Your task to perform on an android device: Clear the shopping cart on costco. Add "acer nitro" to the cart on costco Image 0: 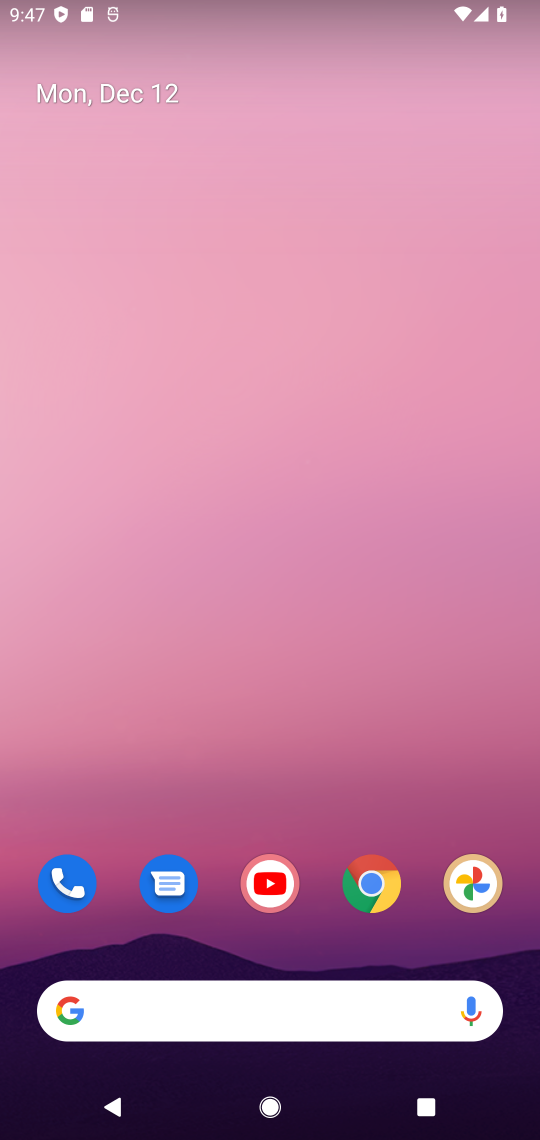
Step 0: drag from (243, 709) to (191, 364)
Your task to perform on an android device: Clear the shopping cart on costco. Add "acer nitro" to the cart on costco Image 1: 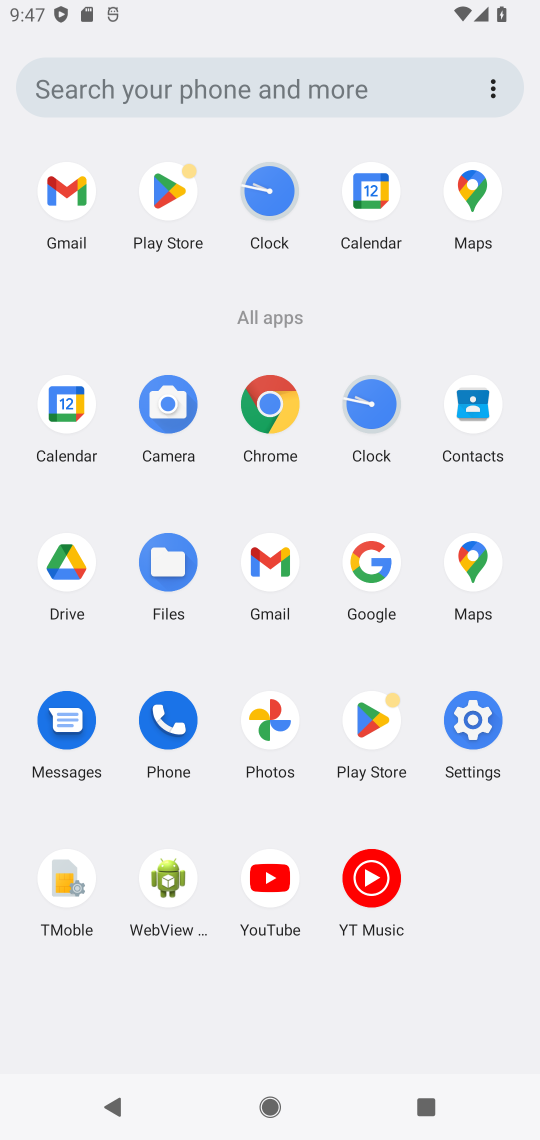
Step 1: click (367, 552)
Your task to perform on an android device: Clear the shopping cart on costco. Add "acer nitro" to the cart on costco Image 2: 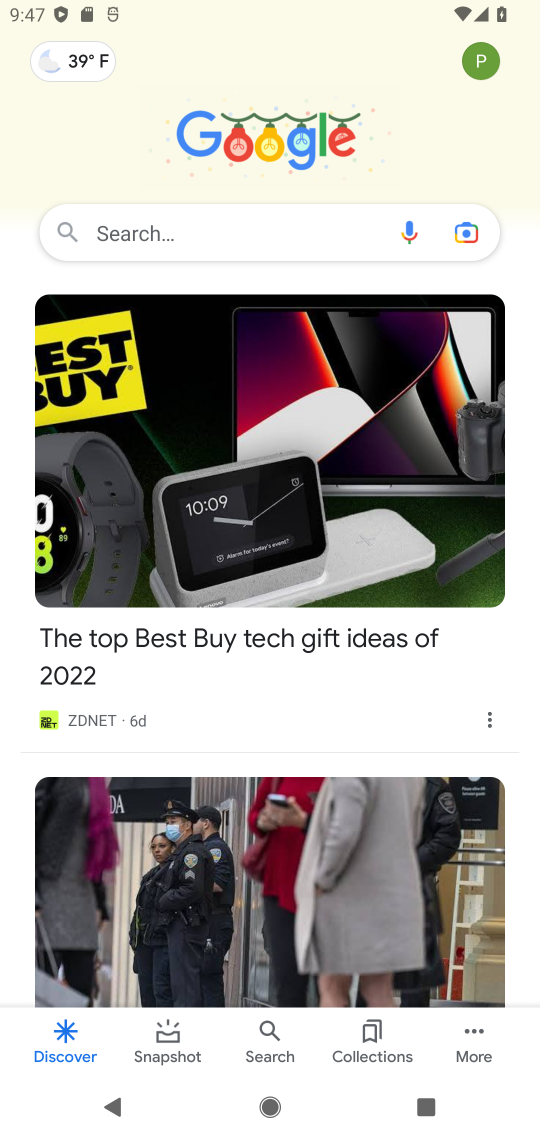
Step 2: click (176, 220)
Your task to perform on an android device: Clear the shopping cart on costco. Add "acer nitro" to the cart on costco Image 3: 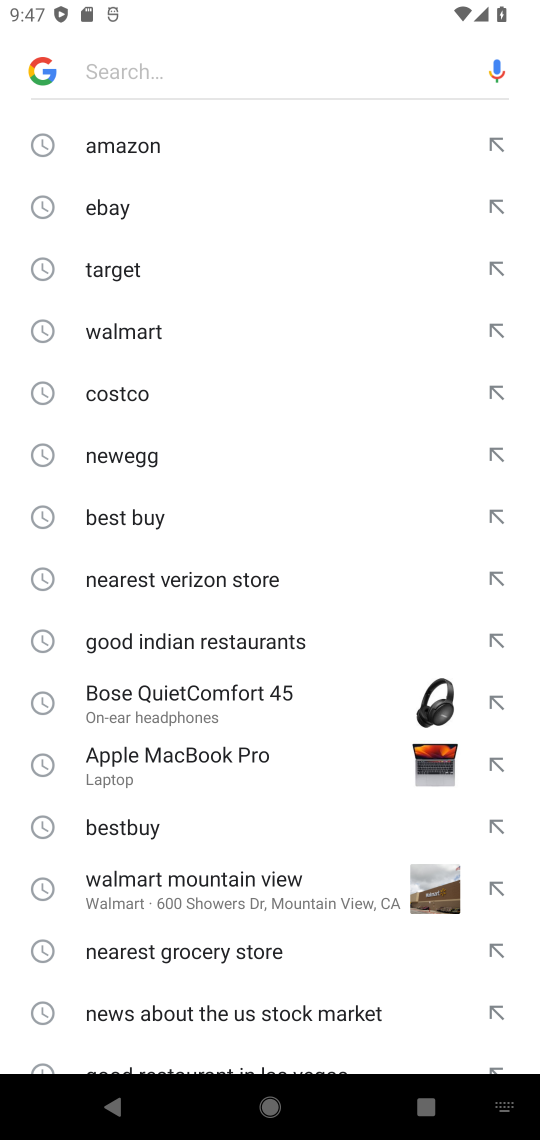
Step 3: click (118, 395)
Your task to perform on an android device: Clear the shopping cart on costco. Add "acer nitro" to the cart on costco Image 4: 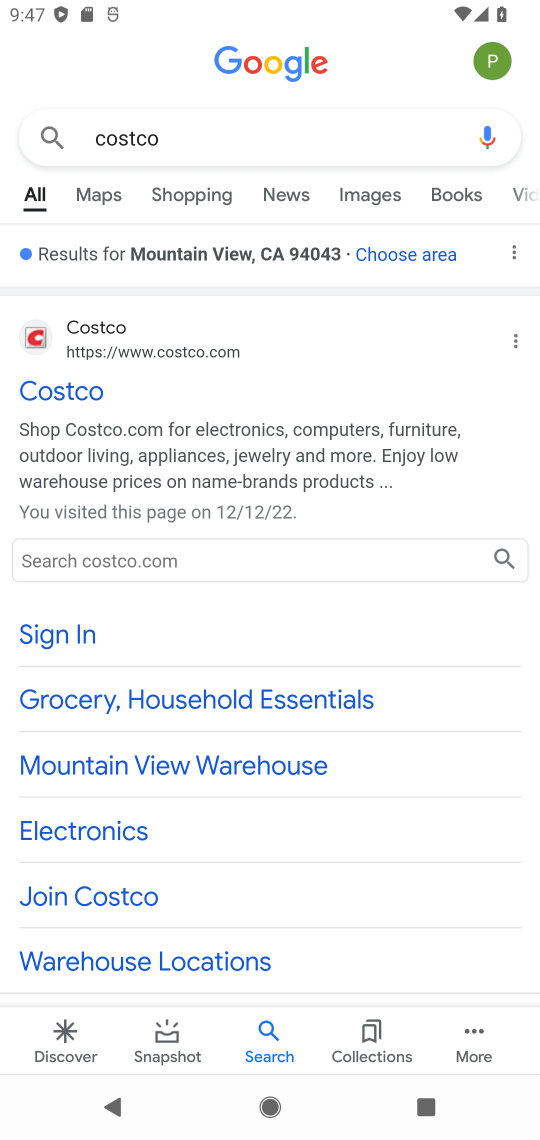
Step 4: click (81, 382)
Your task to perform on an android device: Clear the shopping cart on costco. Add "acer nitro" to the cart on costco Image 5: 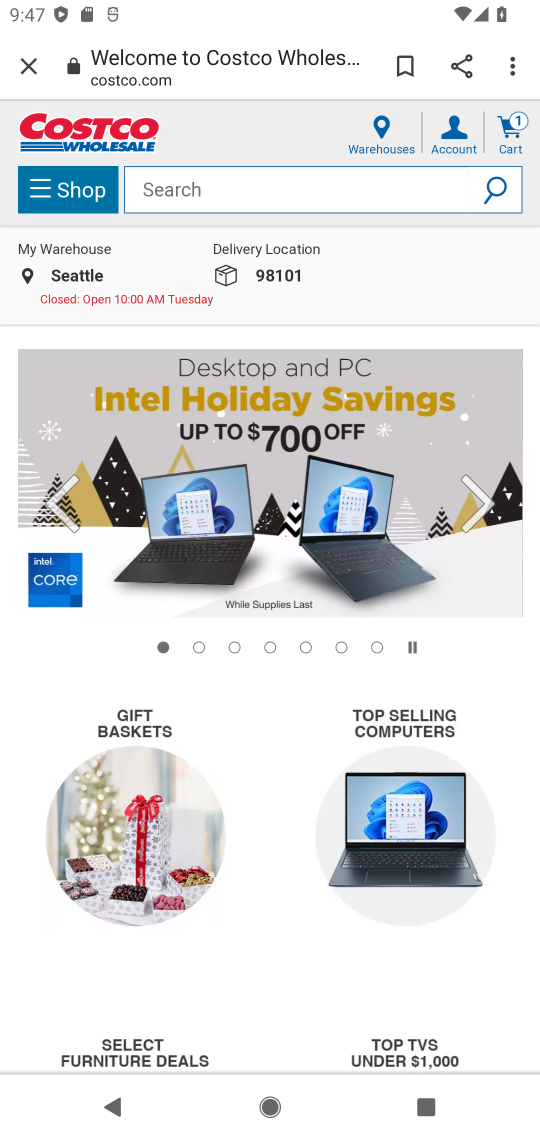
Step 5: click (380, 180)
Your task to perform on an android device: Clear the shopping cart on costco. Add "acer nitro" to the cart on costco Image 6: 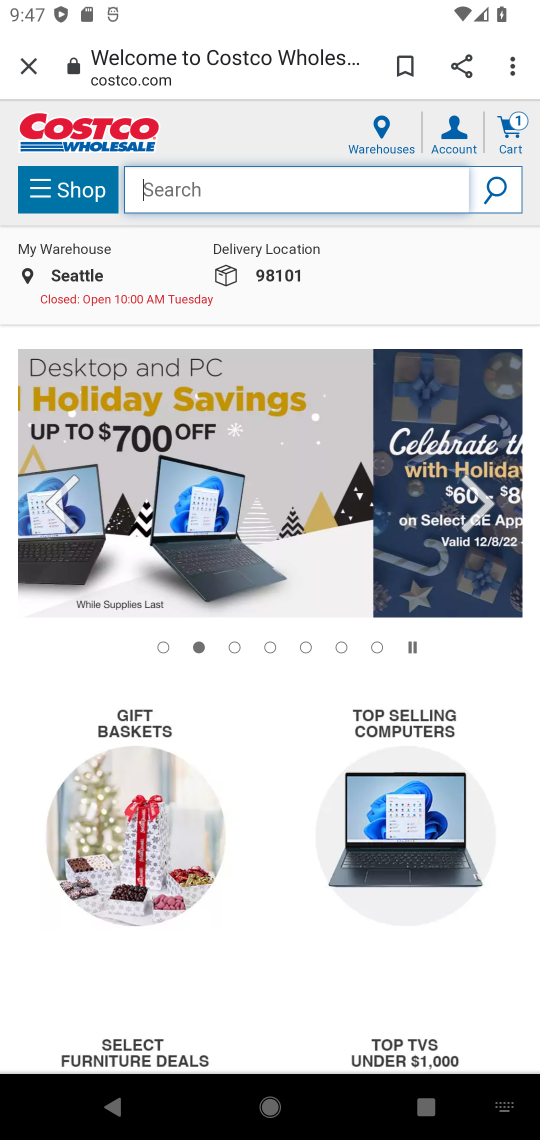
Step 6: click (513, 130)
Your task to perform on an android device: Clear the shopping cart on costco. Add "acer nitro" to the cart on costco Image 7: 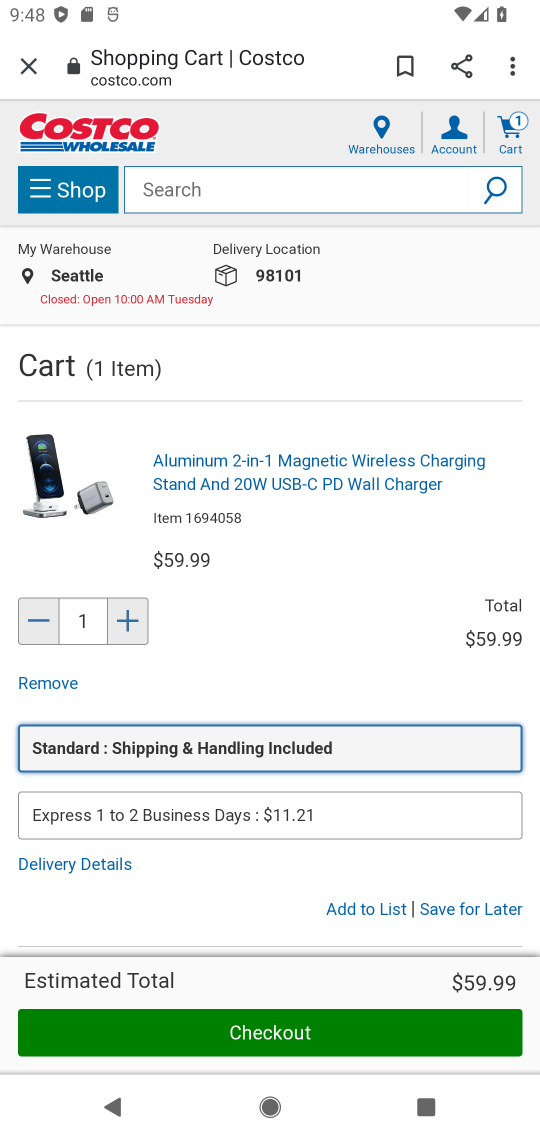
Step 7: click (37, 678)
Your task to perform on an android device: Clear the shopping cart on costco. Add "acer nitro" to the cart on costco Image 8: 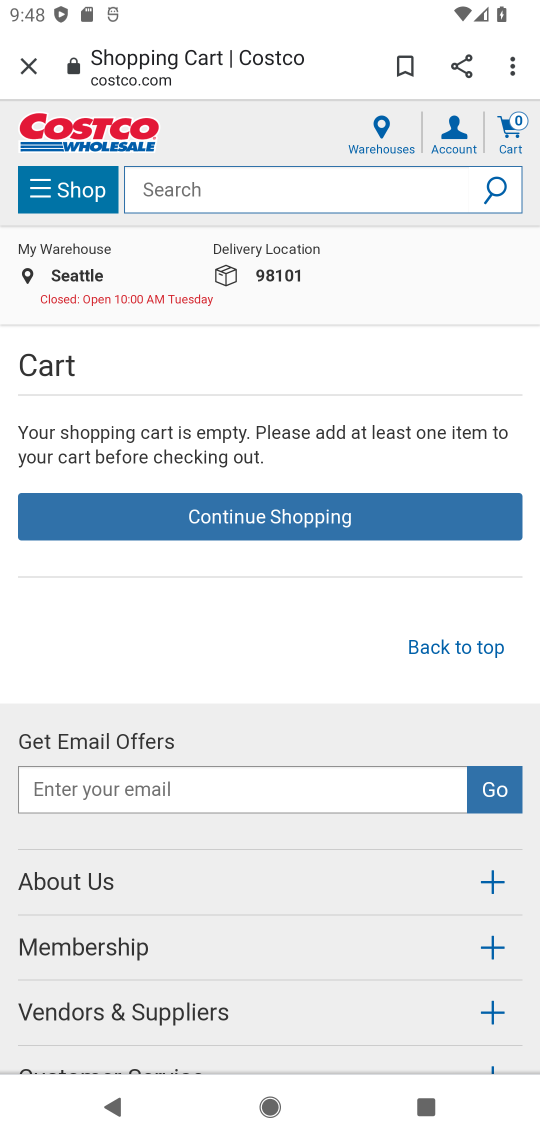
Step 8: click (236, 197)
Your task to perform on an android device: Clear the shopping cart on costco. Add "acer nitro" to the cart on costco Image 9: 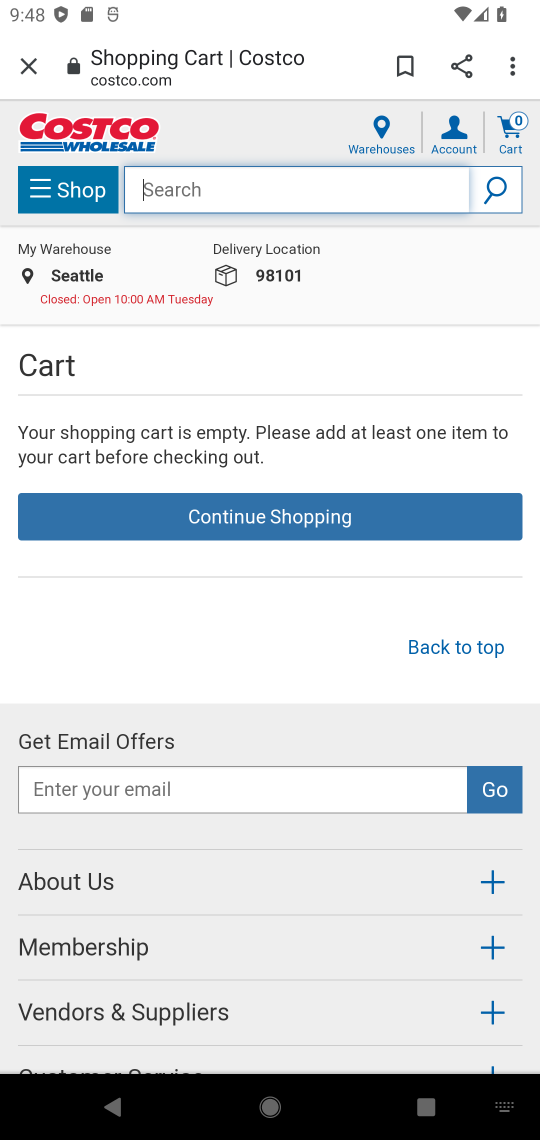
Step 9: type "acer nitro"
Your task to perform on an android device: Clear the shopping cart on costco. Add "acer nitro" to the cart on costco Image 10: 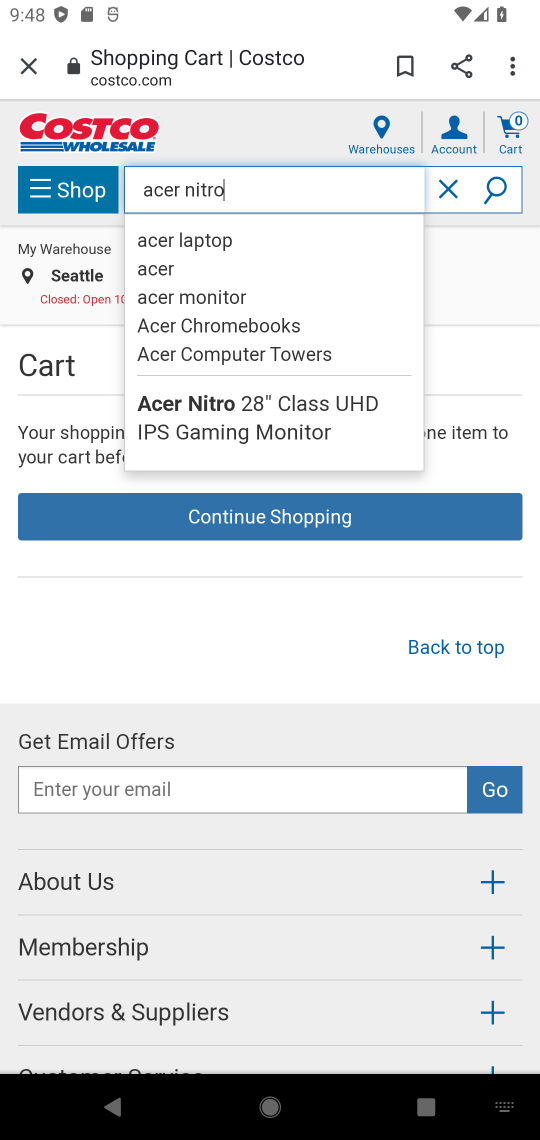
Step 10: click (505, 184)
Your task to perform on an android device: Clear the shopping cart on costco. Add "acer nitro" to the cart on costco Image 11: 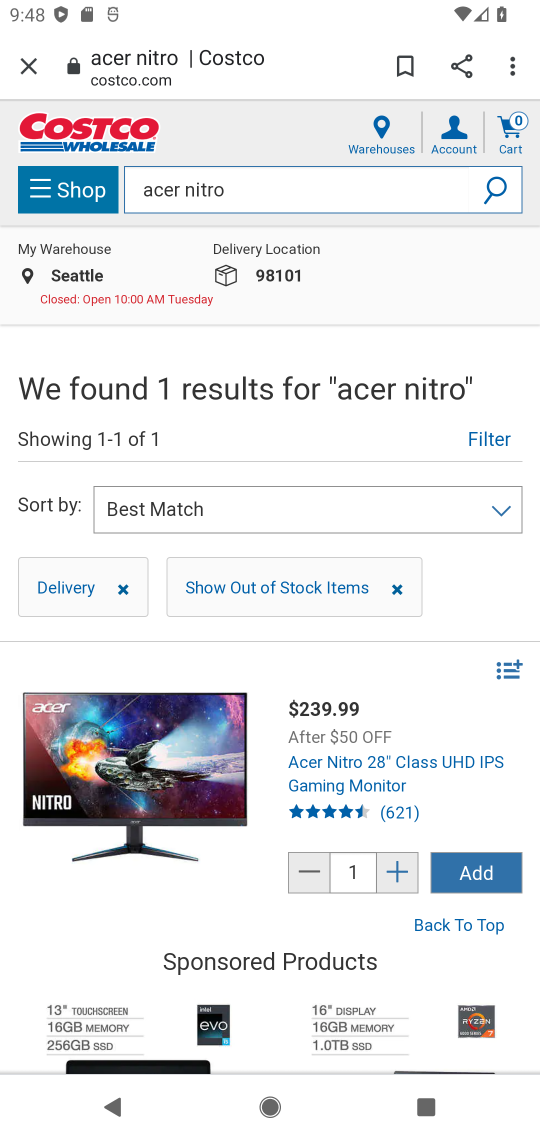
Step 11: click (480, 864)
Your task to perform on an android device: Clear the shopping cart on costco. Add "acer nitro" to the cart on costco Image 12: 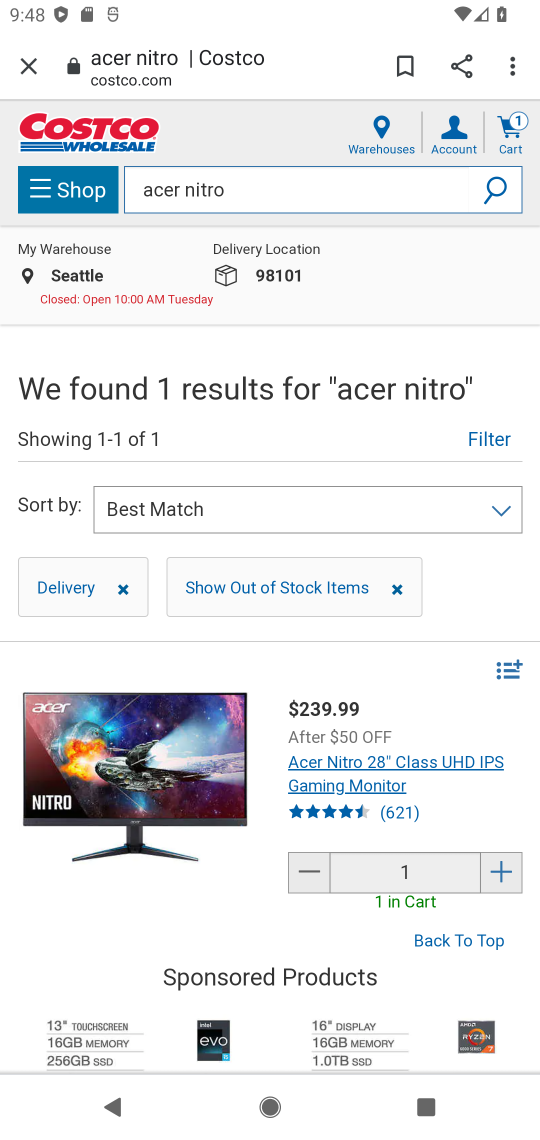
Step 12: task complete